Your task to perform on an android device: toggle pop-ups in chrome Image 0: 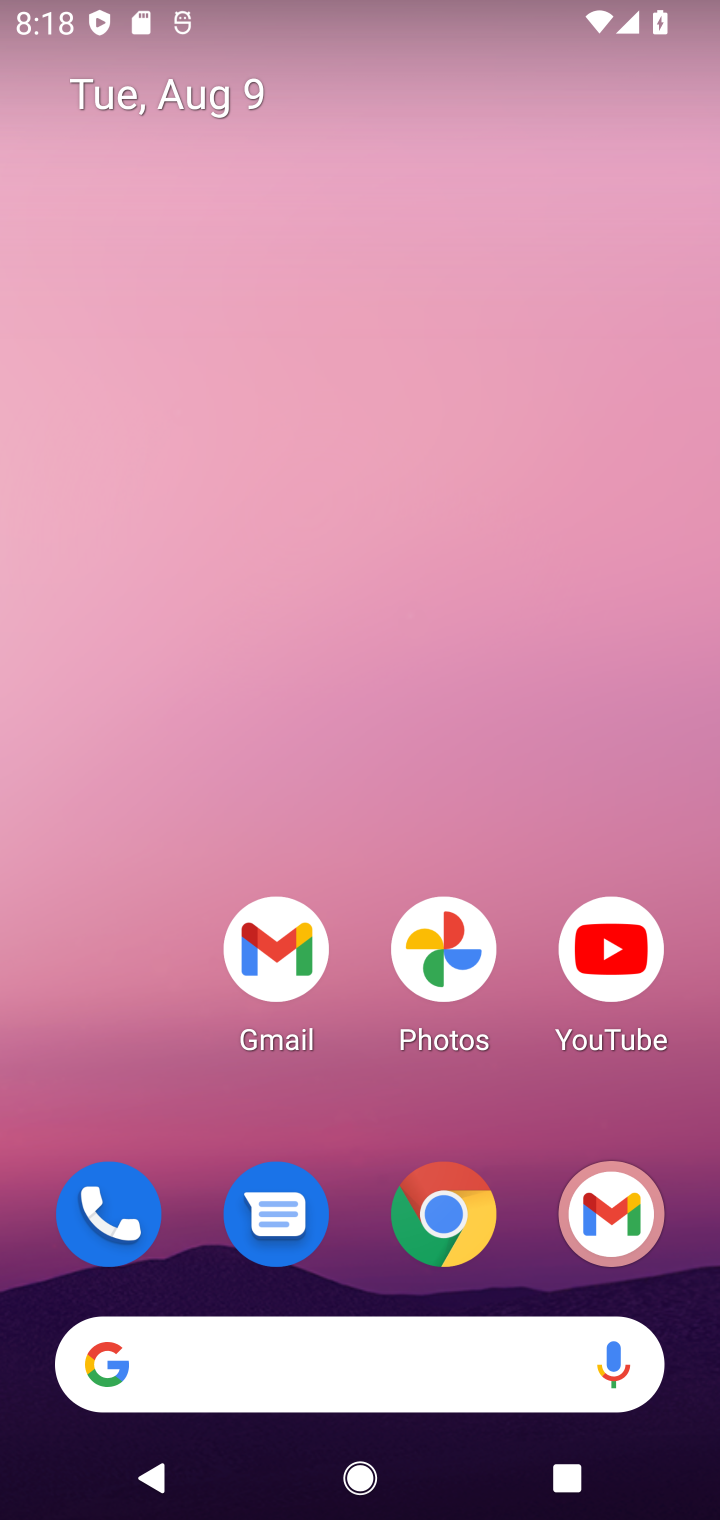
Step 0: click (470, 1211)
Your task to perform on an android device: toggle pop-ups in chrome Image 1: 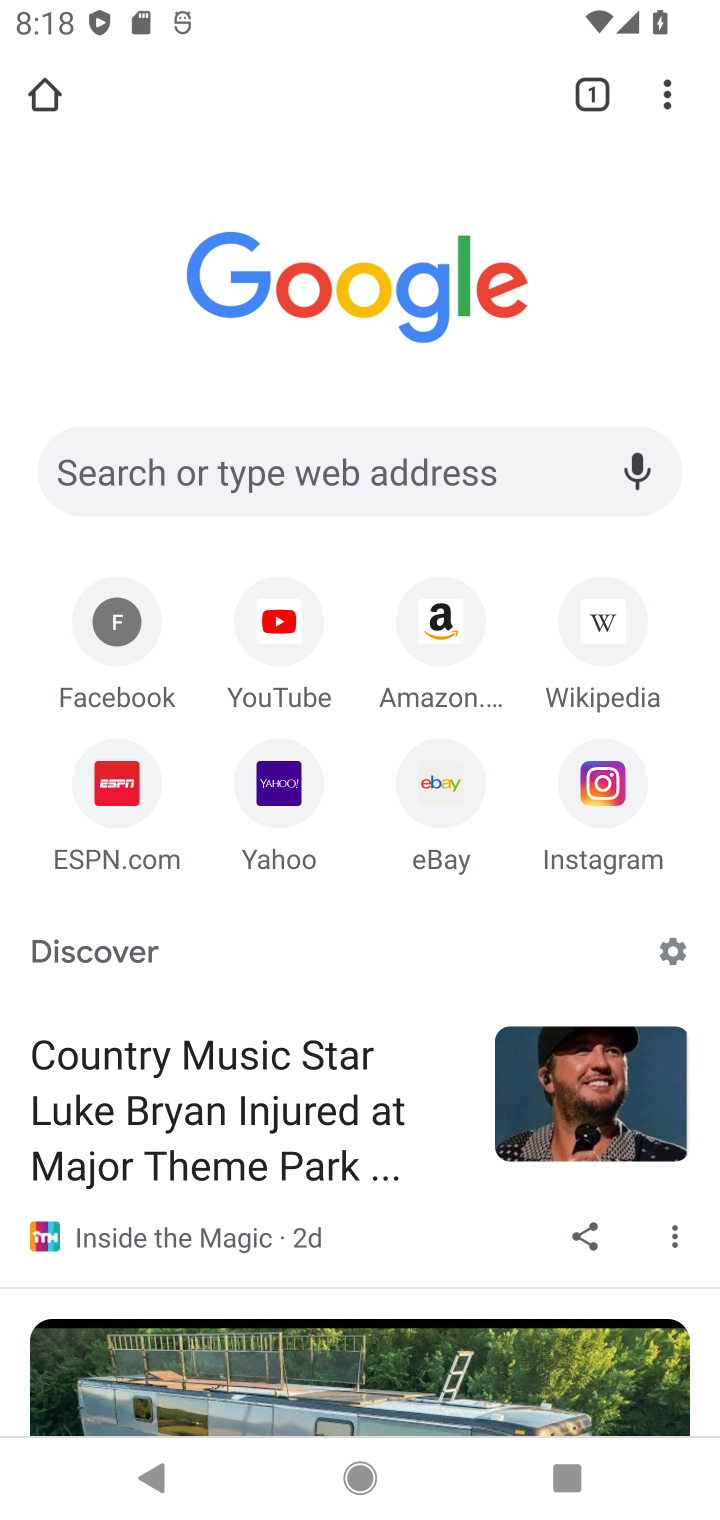
Step 1: click (667, 107)
Your task to perform on an android device: toggle pop-ups in chrome Image 2: 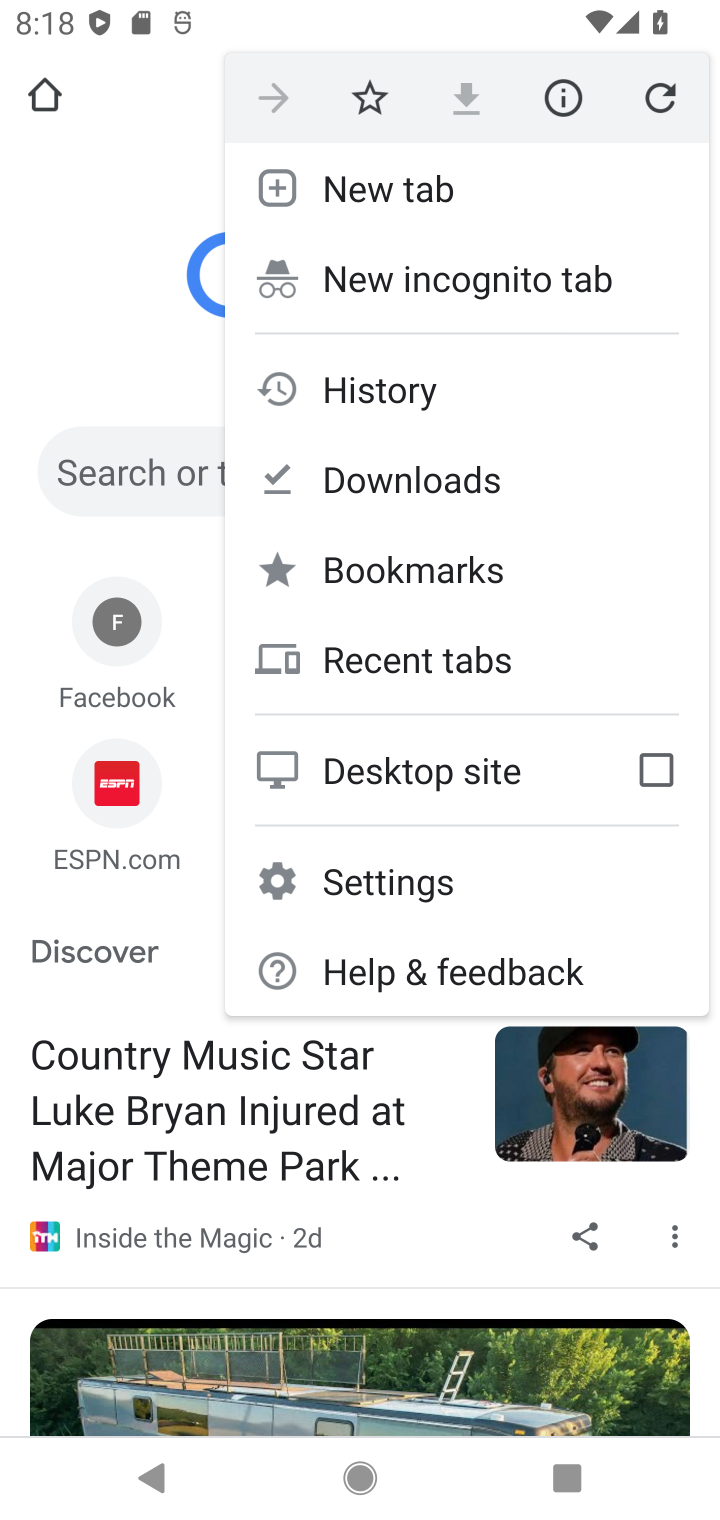
Step 2: click (324, 878)
Your task to perform on an android device: toggle pop-ups in chrome Image 3: 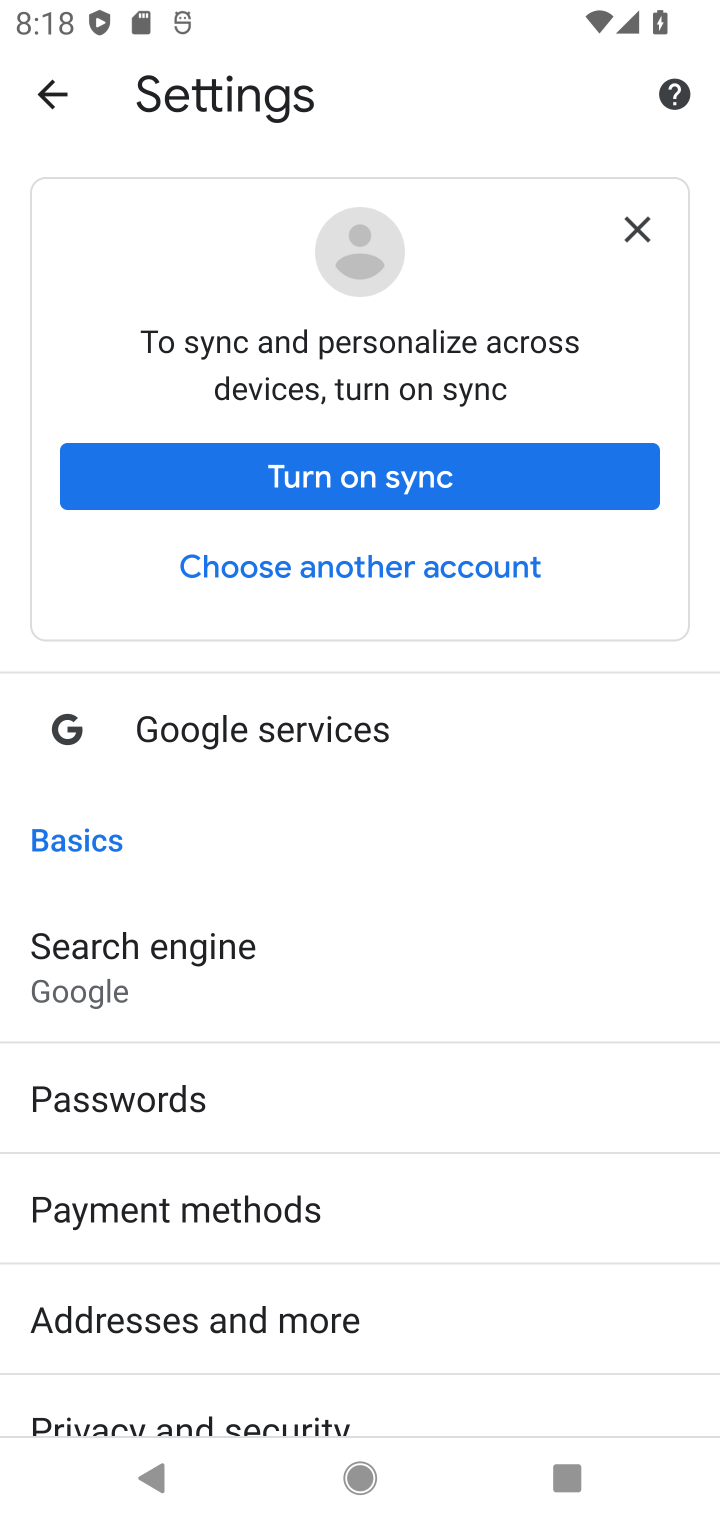
Step 3: drag from (476, 1297) to (416, 754)
Your task to perform on an android device: toggle pop-ups in chrome Image 4: 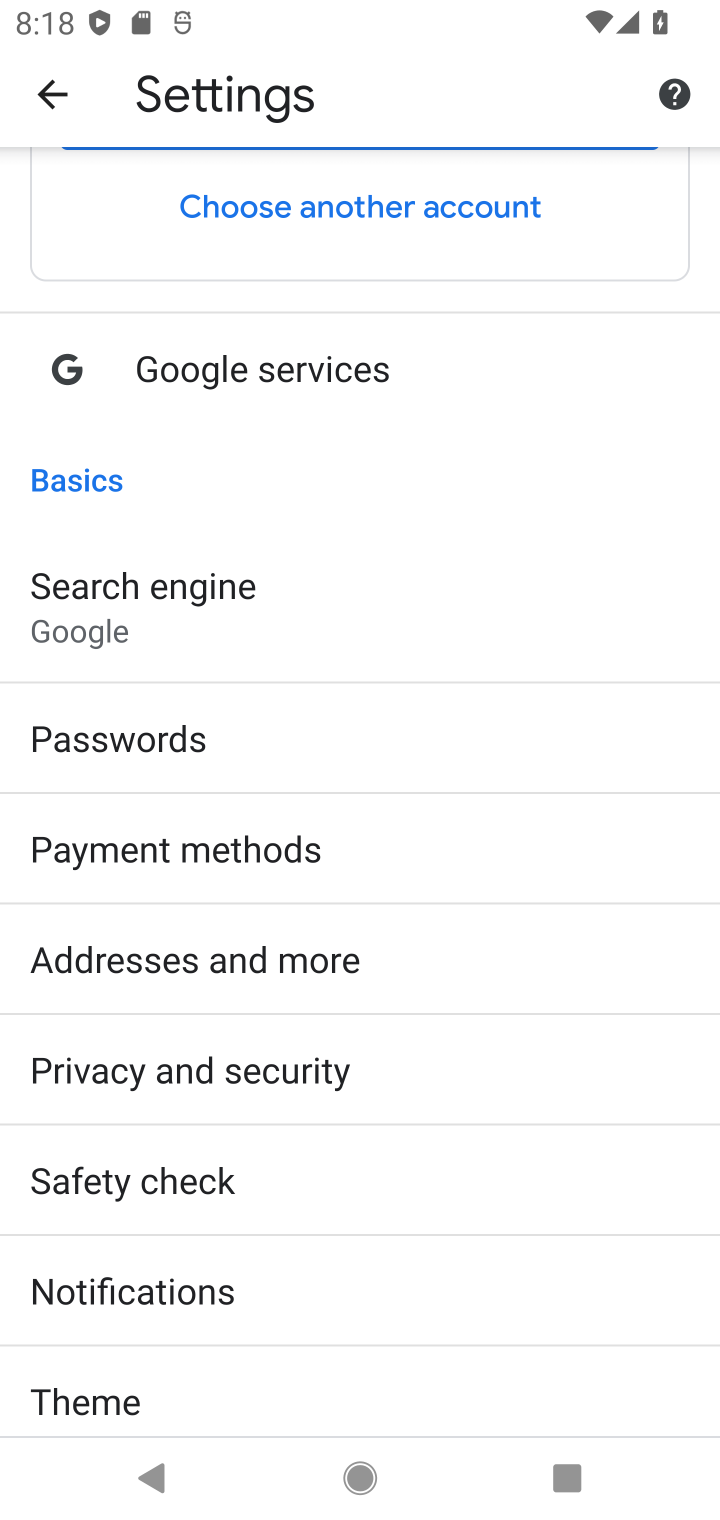
Step 4: drag from (573, 1344) to (592, 668)
Your task to perform on an android device: toggle pop-ups in chrome Image 5: 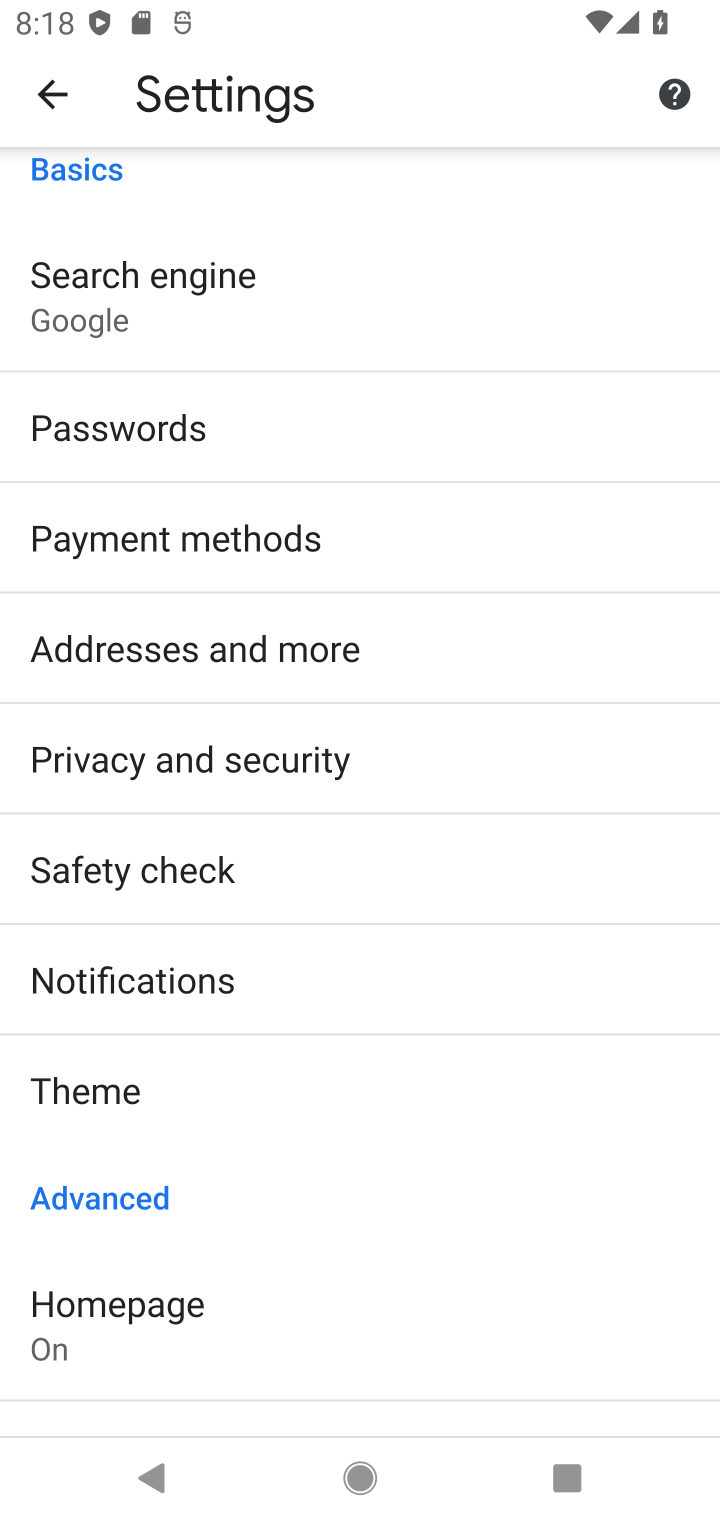
Step 5: drag from (471, 1259) to (421, 526)
Your task to perform on an android device: toggle pop-ups in chrome Image 6: 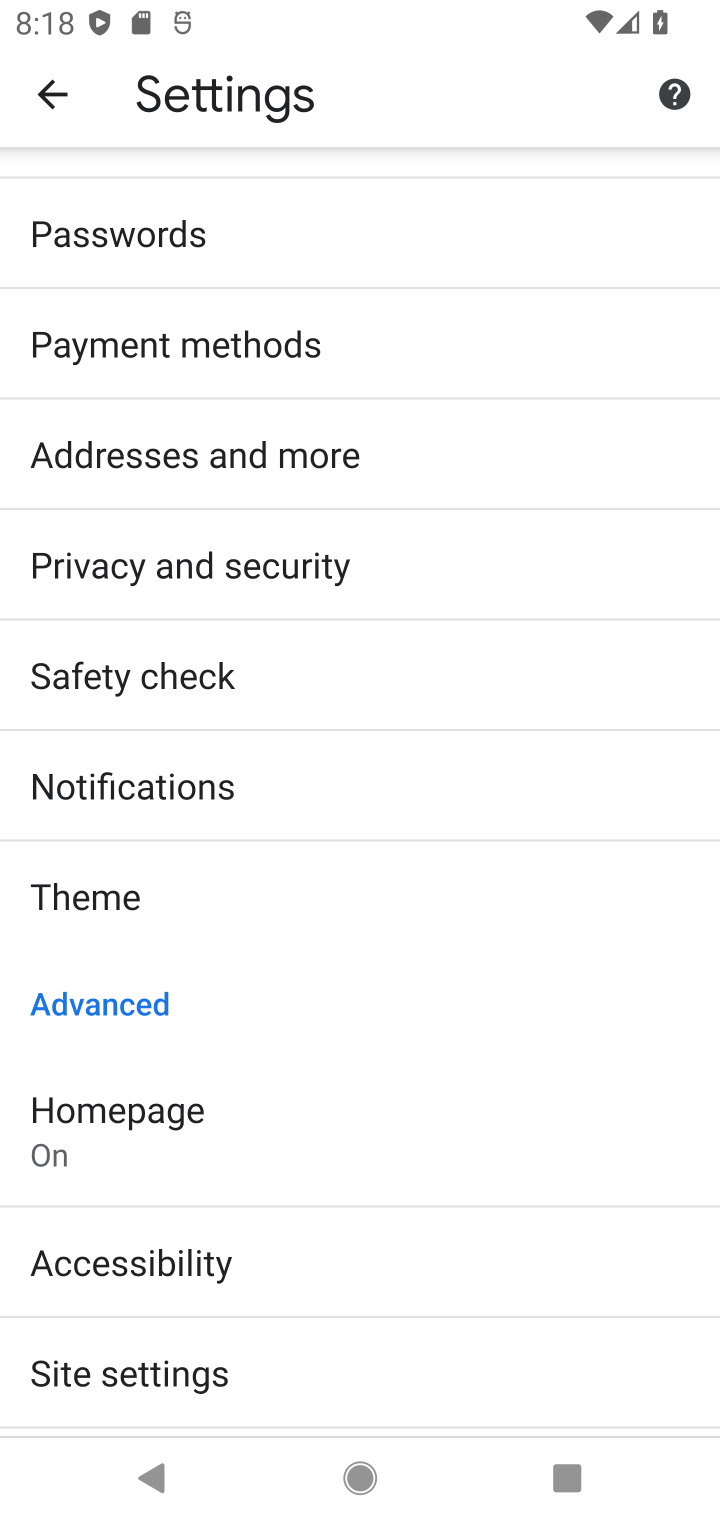
Step 6: click (160, 1379)
Your task to perform on an android device: toggle pop-ups in chrome Image 7: 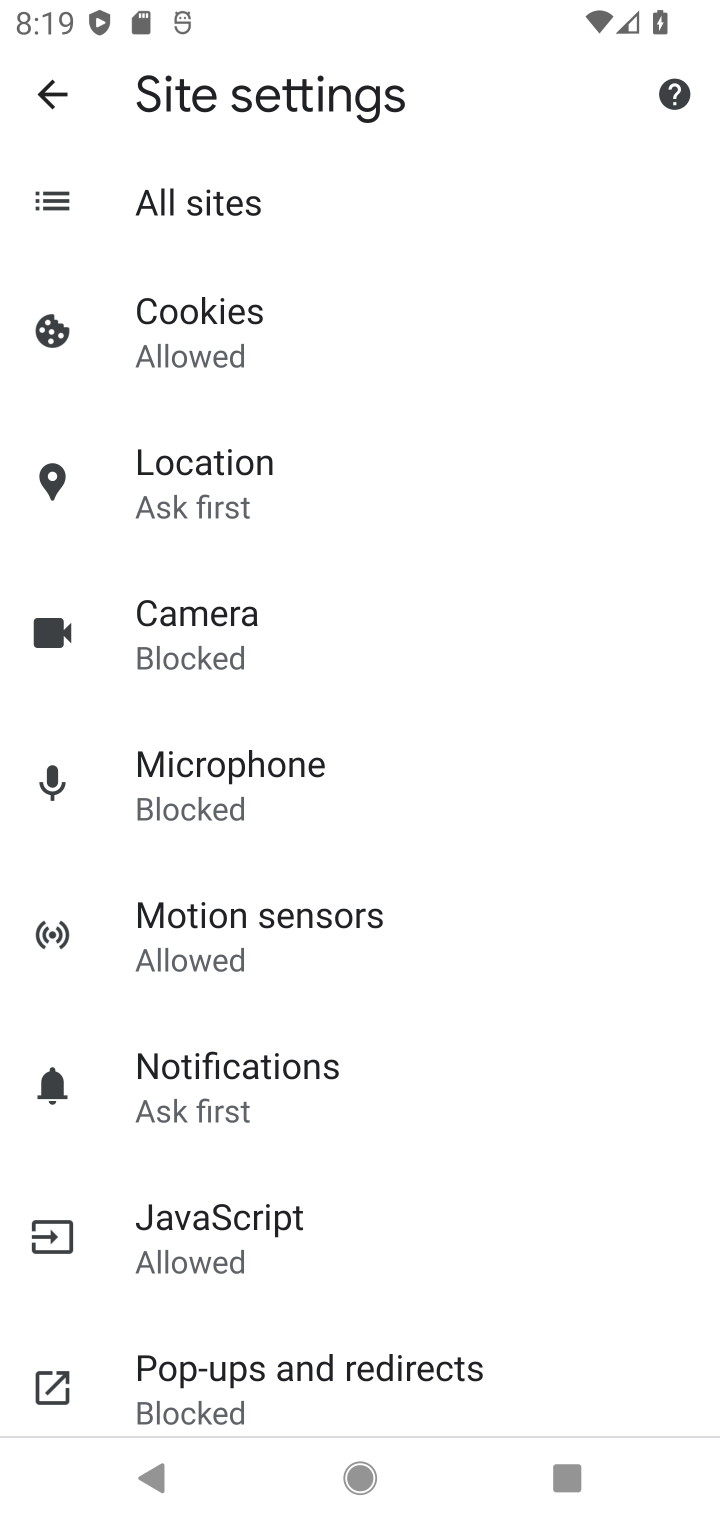
Step 7: click (401, 1353)
Your task to perform on an android device: toggle pop-ups in chrome Image 8: 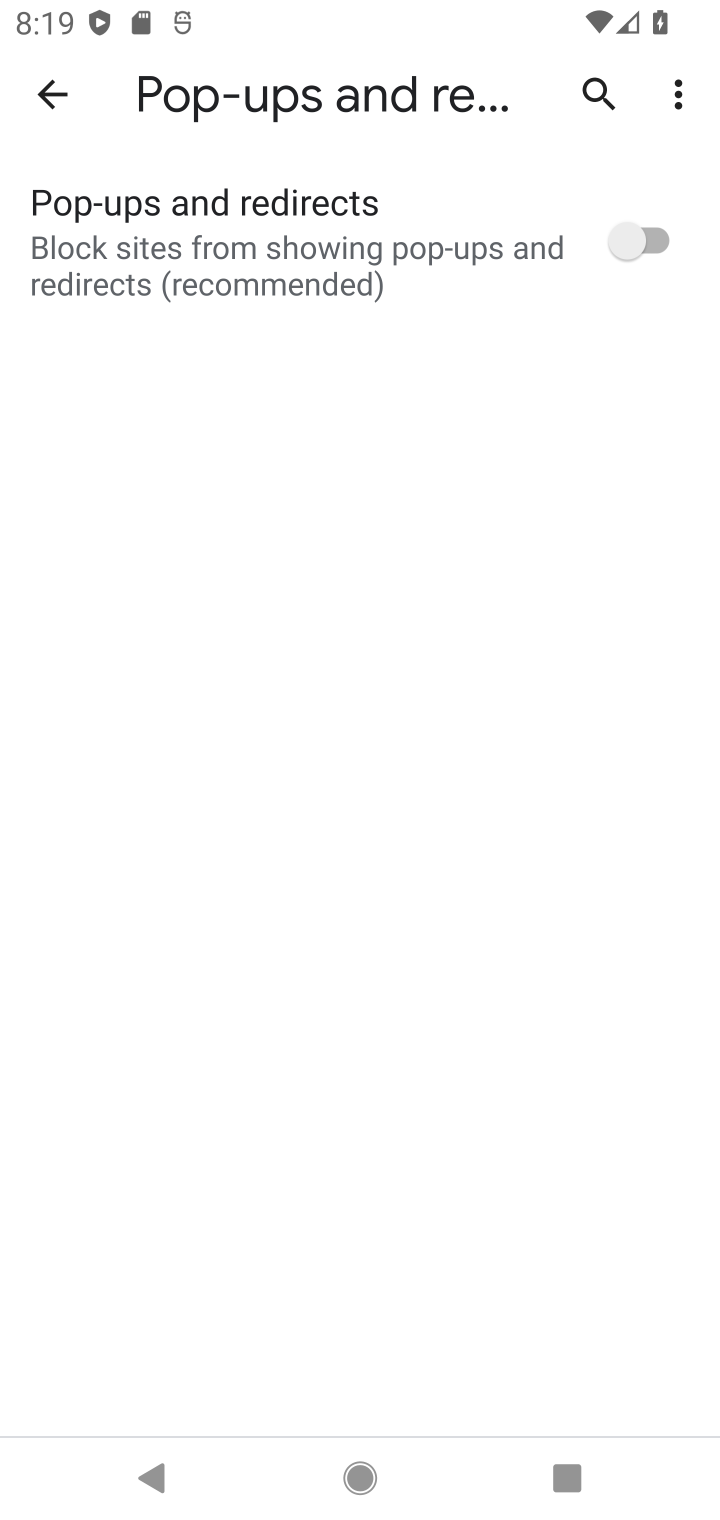
Step 8: click (644, 240)
Your task to perform on an android device: toggle pop-ups in chrome Image 9: 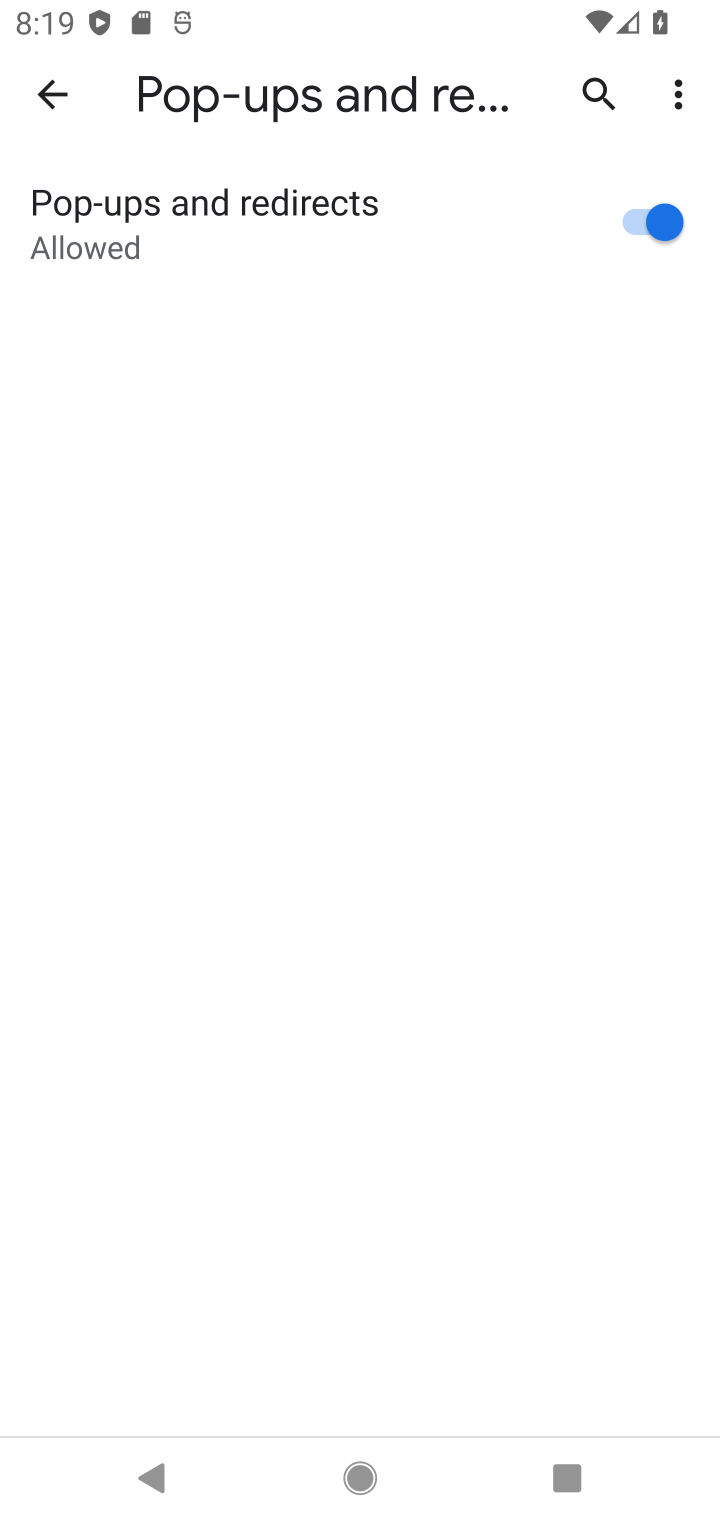
Step 9: task complete